Your task to perform on an android device: Open Google Chrome Image 0: 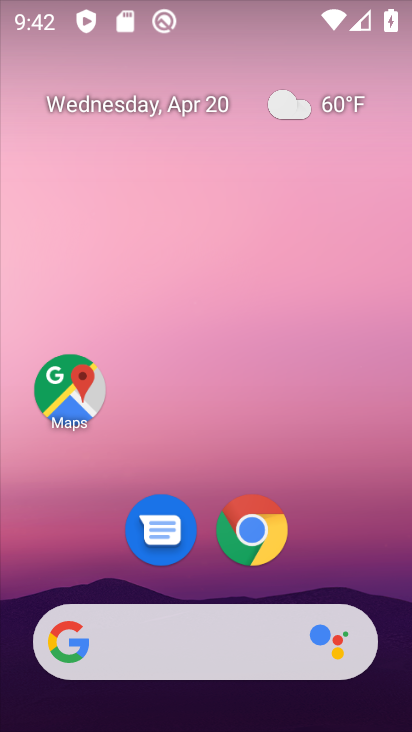
Step 0: click (258, 526)
Your task to perform on an android device: Open Google Chrome Image 1: 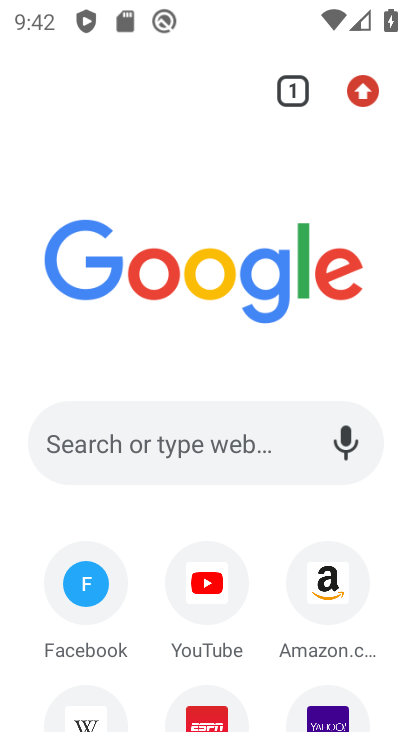
Step 1: task complete